Your task to perform on an android device: turn on showing notifications on the lock screen Image 0: 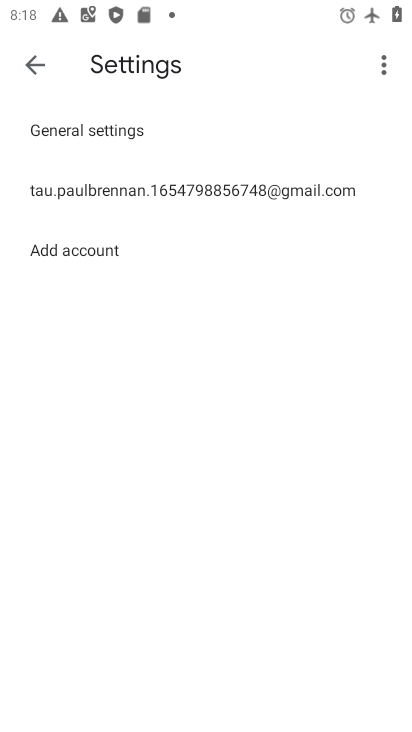
Step 0: press home button
Your task to perform on an android device: turn on showing notifications on the lock screen Image 1: 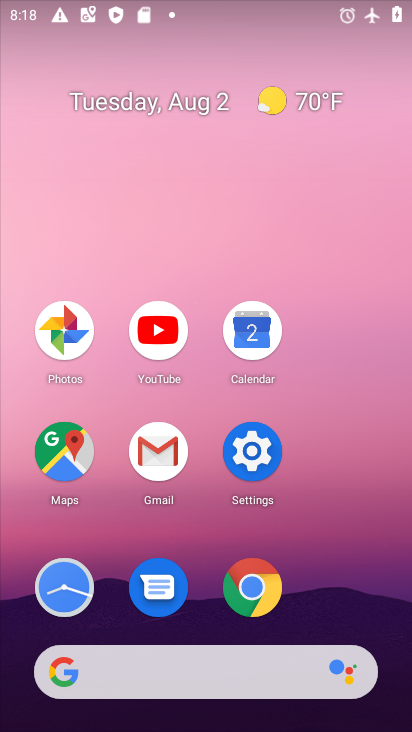
Step 1: click (244, 446)
Your task to perform on an android device: turn on showing notifications on the lock screen Image 2: 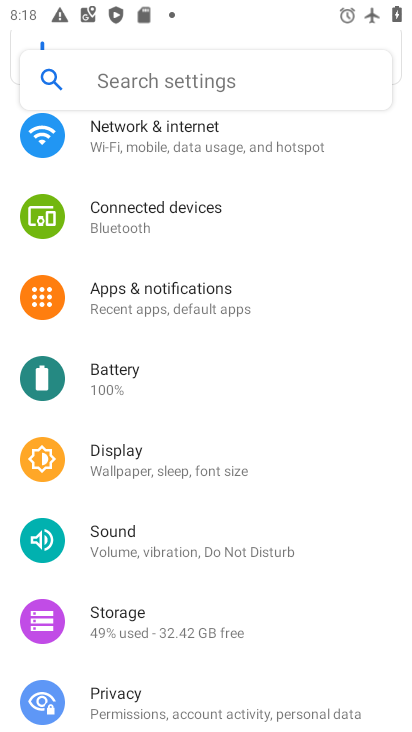
Step 2: click (154, 293)
Your task to perform on an android device: turn on showing notifications on the lock screen Image 3: 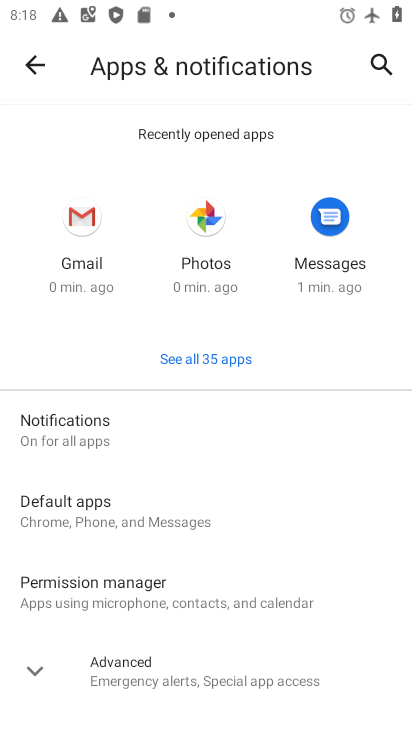
Step 3: click (72, 422)
Your task to perform on an android device: turn on showing notifications on the lock screen Image 4: 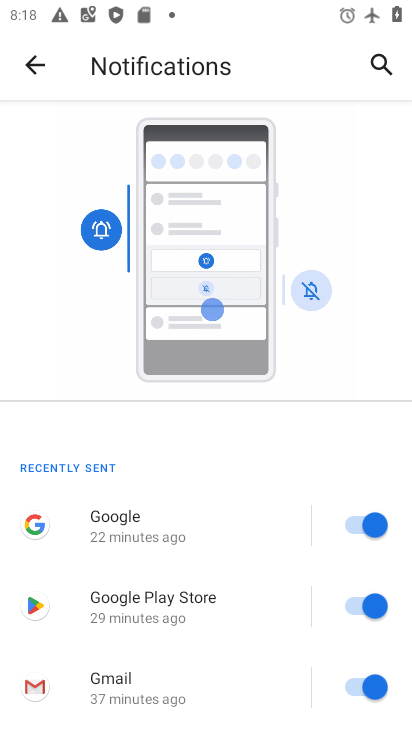
Step 4: drag from (209, 566) to (208, 222)
Your task to perform on an android device: turn on showing notifications on the lock screen Image 5: 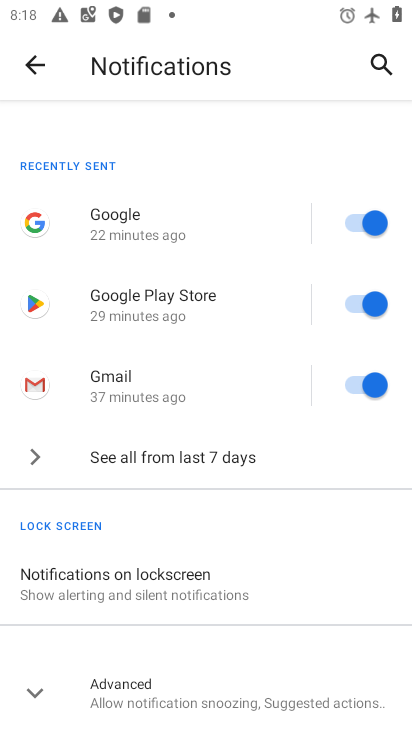
Step 5: click (124, 569)
Your task to perform on an android device: turn on showing notifications on the lock screen Image 6: 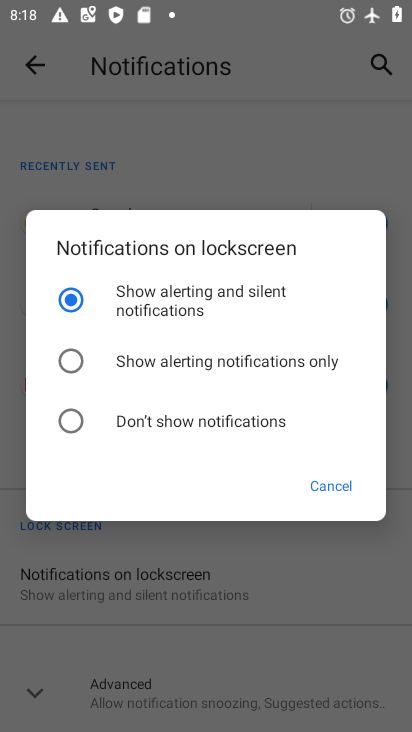
Step 6: task complete